Your task to perform on an android device: add a contact in the contacts app Image 0: 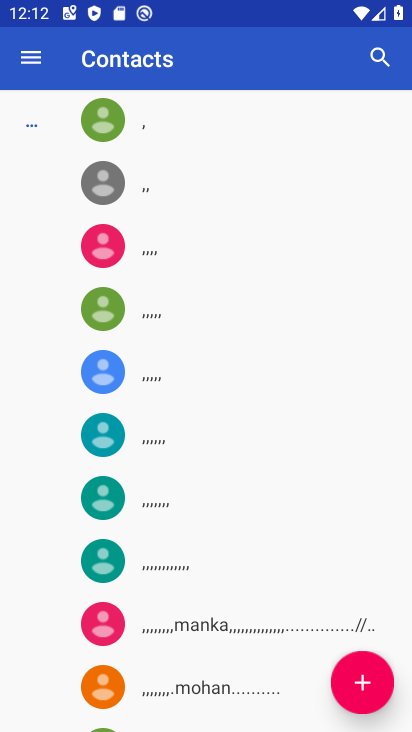
Step 0: press home button
Your task to perform on an android device: add a contact in the contacts app Image 1: 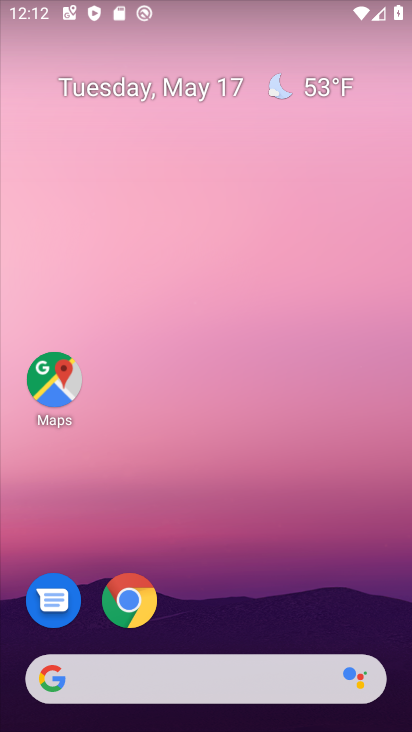
Step 1: drag from (226, 613) to (175, 153)
Your task to perform on an android device: add a contact in the contacts app Image 2: 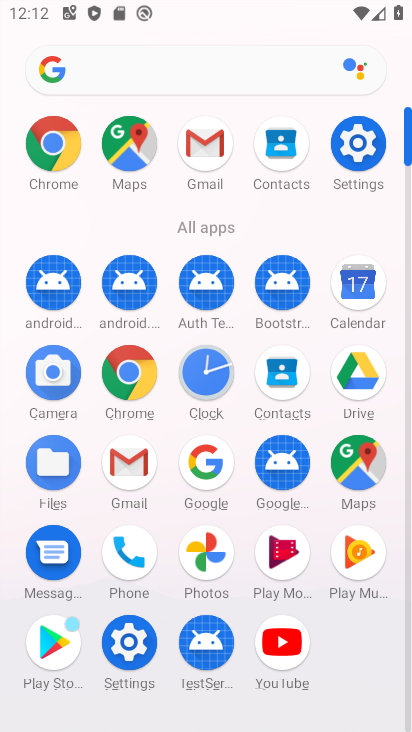
Step 2: click (270, 143)
Your task to perform on an android device: add a contact in the contacts app Image 3: 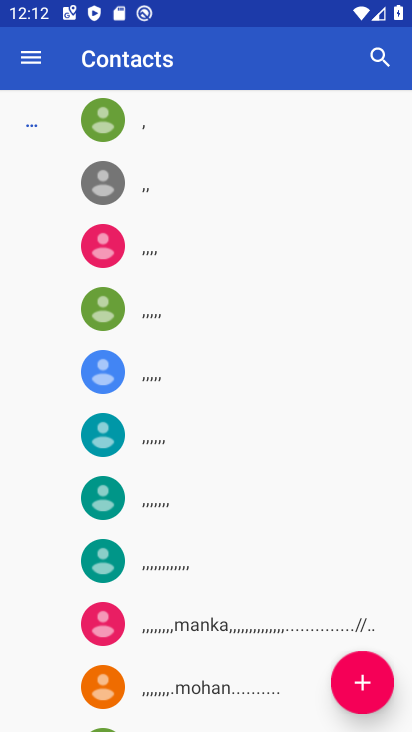
Step 3: click (363, 675)
Your task to perform on an android device: add a contact in the contacts app Image 4: 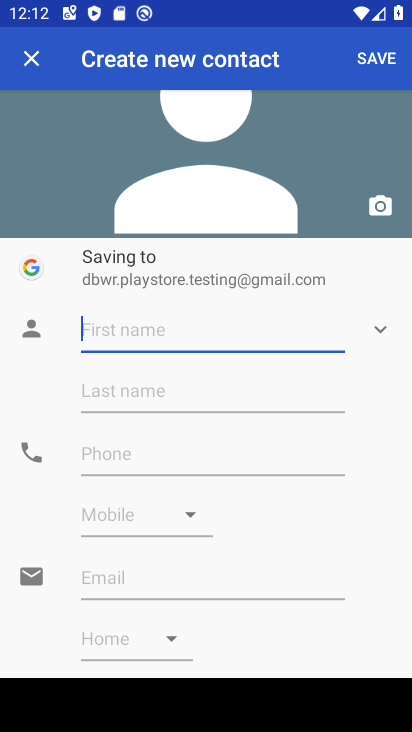
Step 4: click (177, 337)
Your task to perform on an android device: add a contact in the contacts app Image 5: 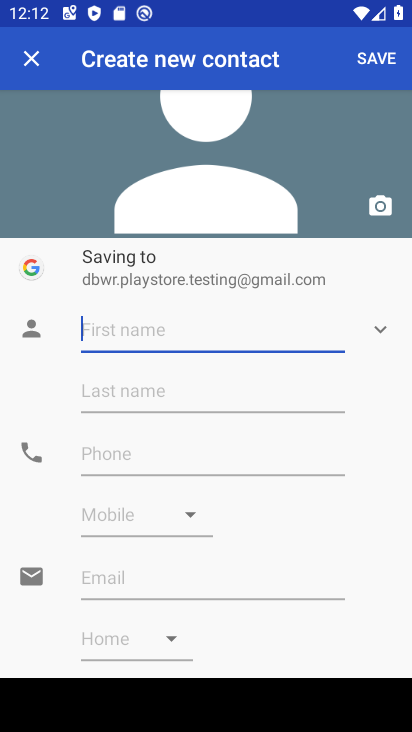
Step 5: type "jhbjhbh"
Your task to perform on an android device: add a contact in the contacts app Image 6: 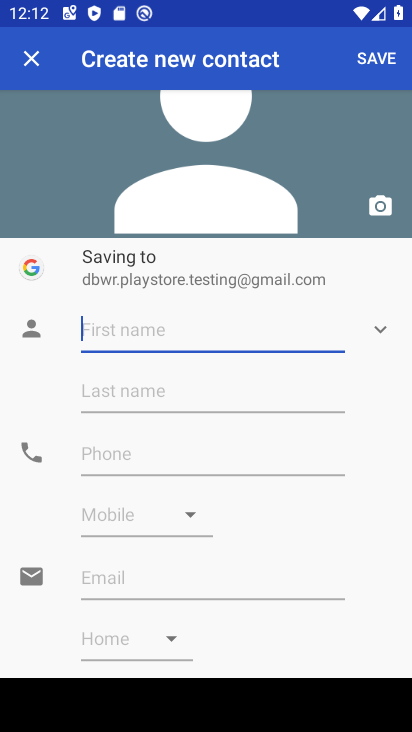
Step 6: click (143, 455)
Your task to perform on an android device: add a contact in the contacts app Image 7: 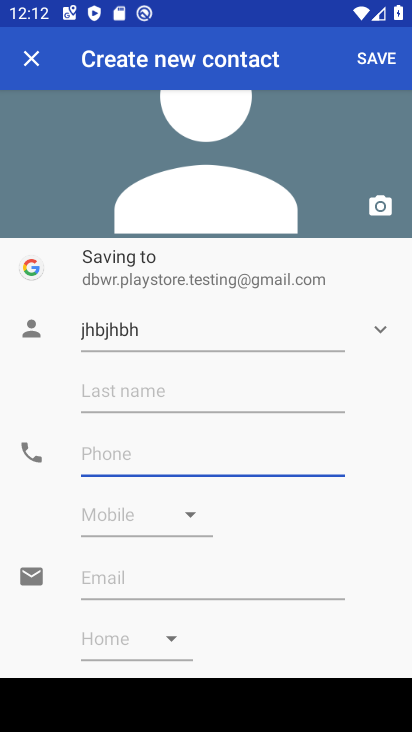
Step 7: type "987988789"
Your task to perform on an android device: add a contact in the contacts app Image 8: 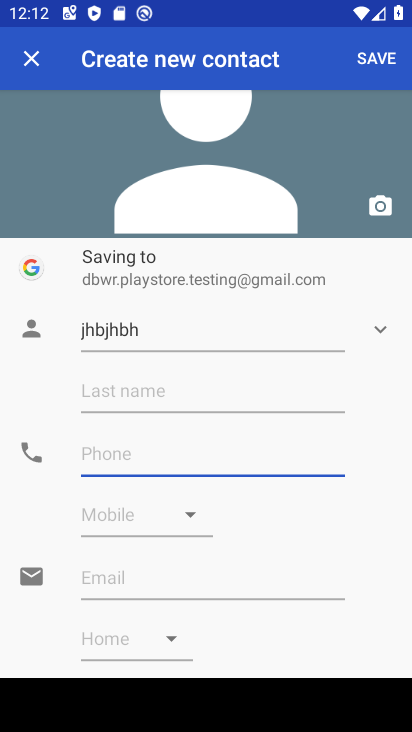
Step 8: click (399, 508)
Your task to perform on an android device: add a contact in the contacts app Image 9: 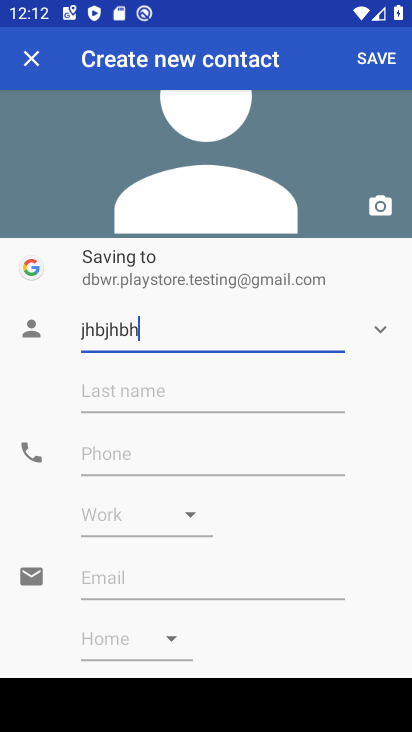
Step 9: task complete